Your task to perform on an android device: open app "Expedia: Hotels, Flights & Car" Image 0: 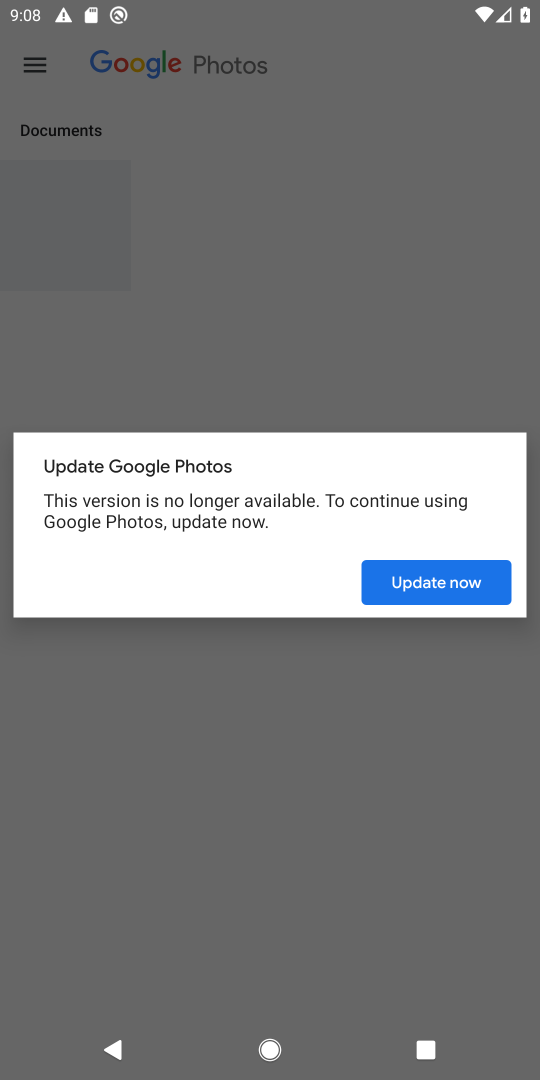
Step 0: press home button
Your task to perform on an android device: open app "Expedia: Hotels, Flights & Car" Image 1: 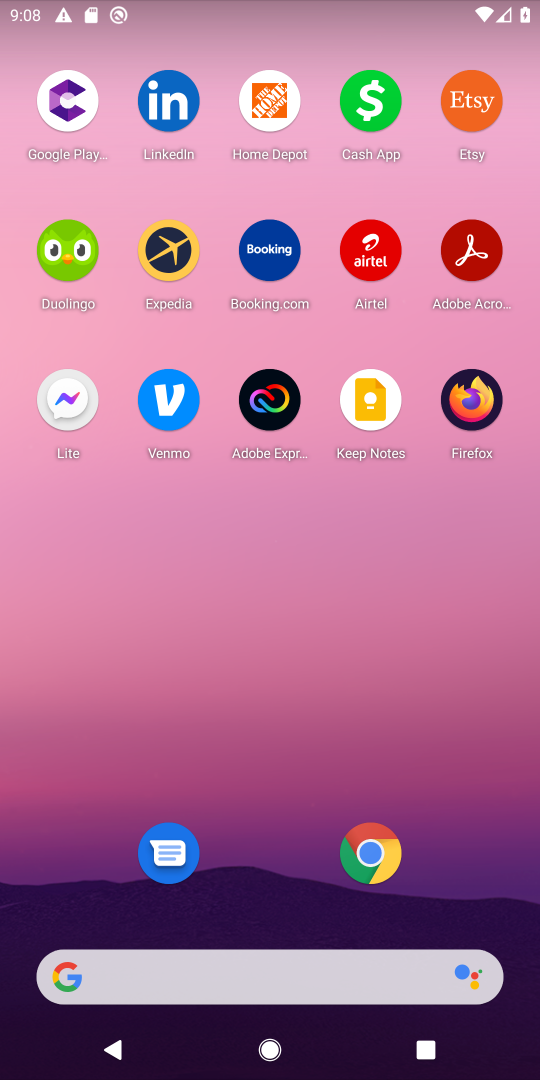
Step 1: drag from (279, 856) to (294, 302)
Your task to perform on an android device: open app "Expedia: Hotels, Flights & Car" Image 2: 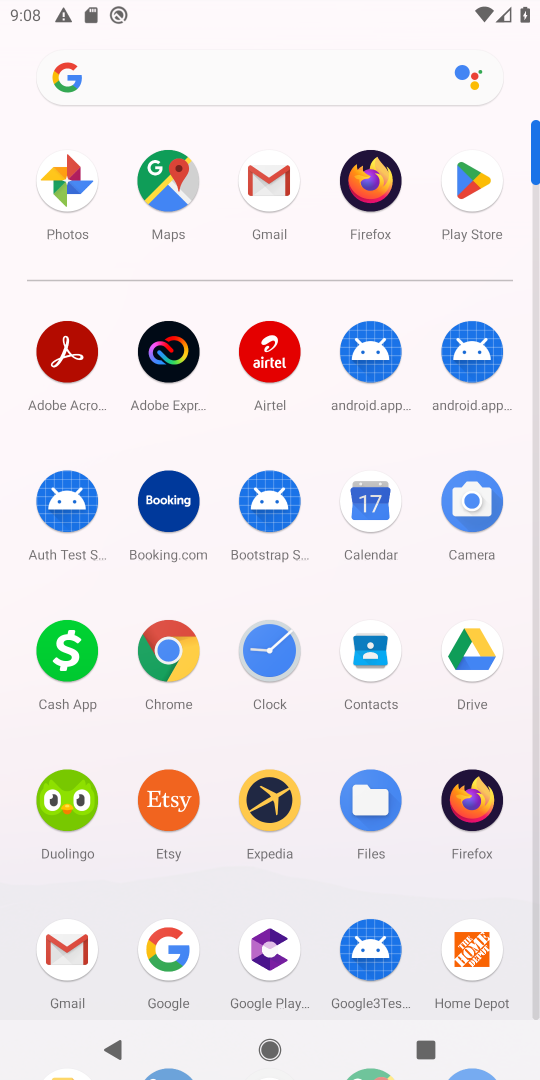
Step 2: click (459, 171)
Your task to perform on an android device: open app "Expedia: Hotels, Flights & Car" Image 3: 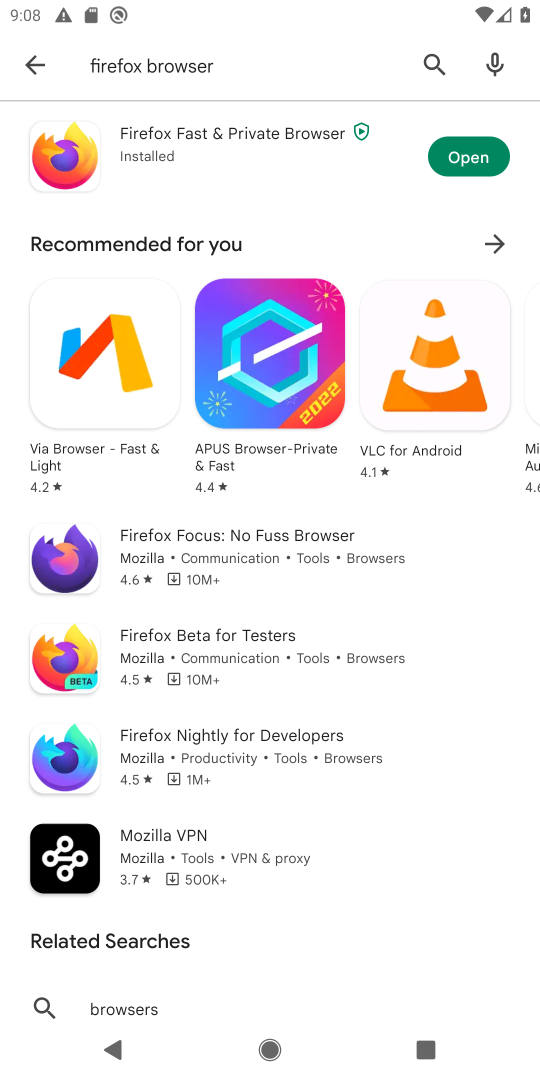
Step 3: click (423, 56)
Your task to perform on an android device: open app "Expedia: Hotels, Flights & Car" Image 4: 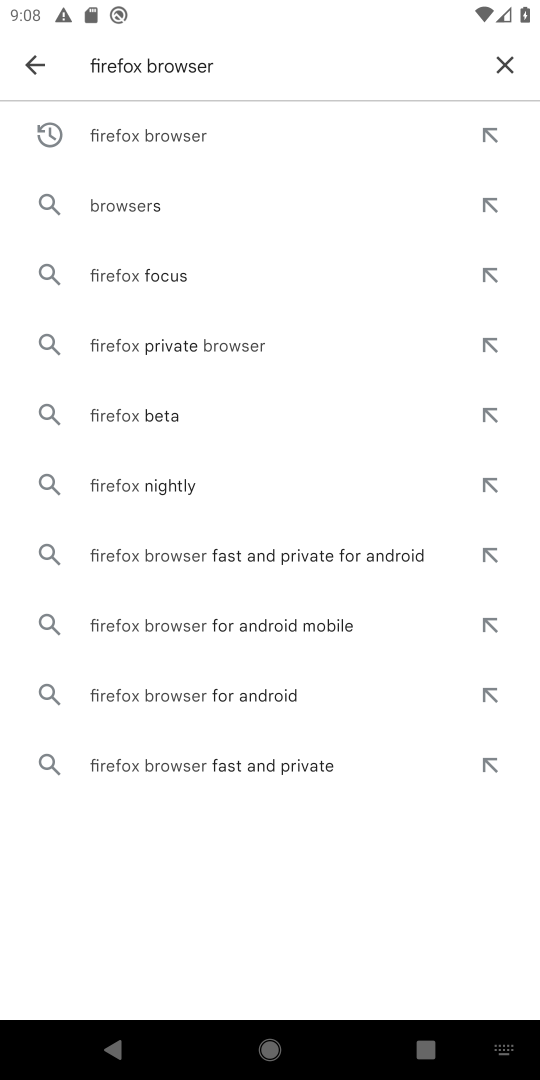
Step 4: click (504, 61)
Your task to perform on an android device: open app "Expedia: Hotels, Flights & Car" Image 5: 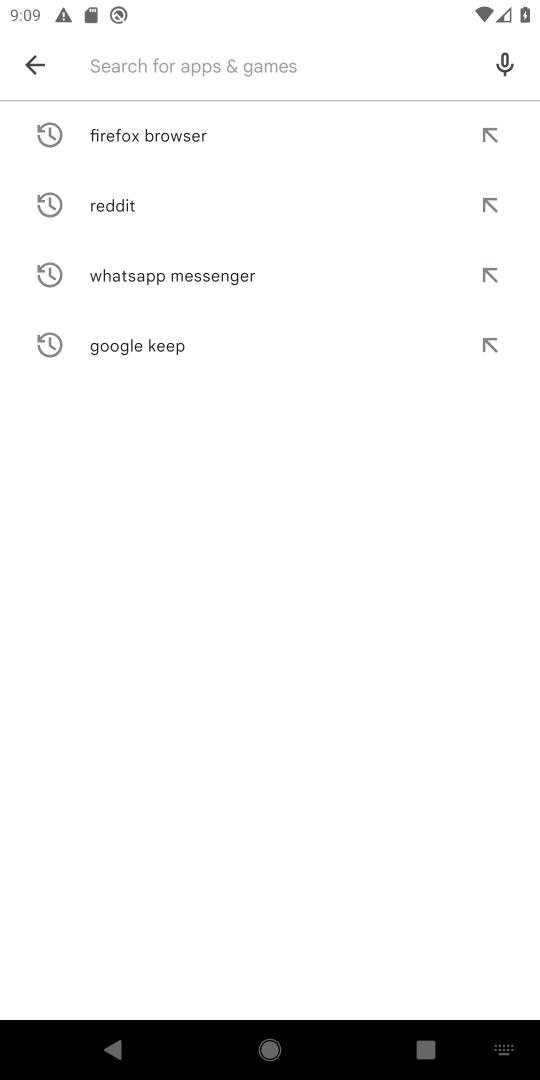
Step 5: type "Expedia: Hotels, Flights & Car"
Your task to perform on an android device: open app "Expedia: Hotels, Flights & Car" Image 6: 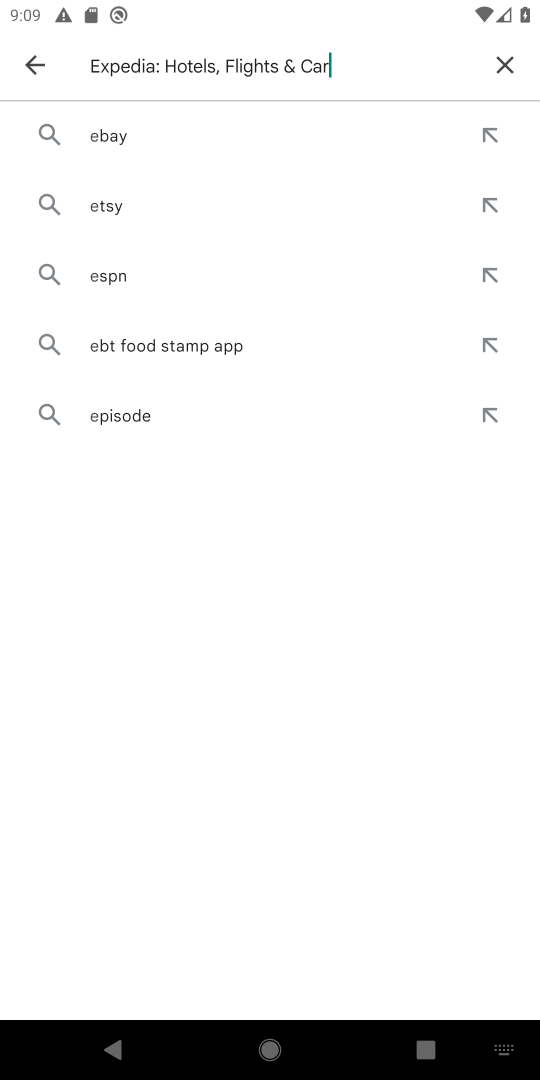
Step 6: type ""
Your task to perform on an android device: open app "Expedia: Hotels, Flights & Car" Image 7: 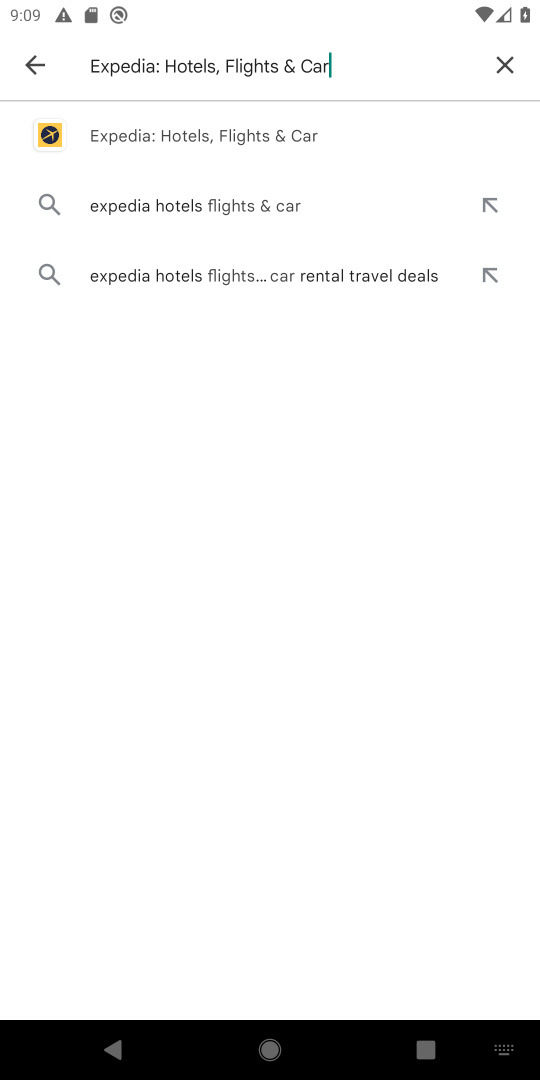
Step 7: click (305, 152)
Your task to perform on an android device: open app "Expedia: Hotels, Flights & Car" Image 8: 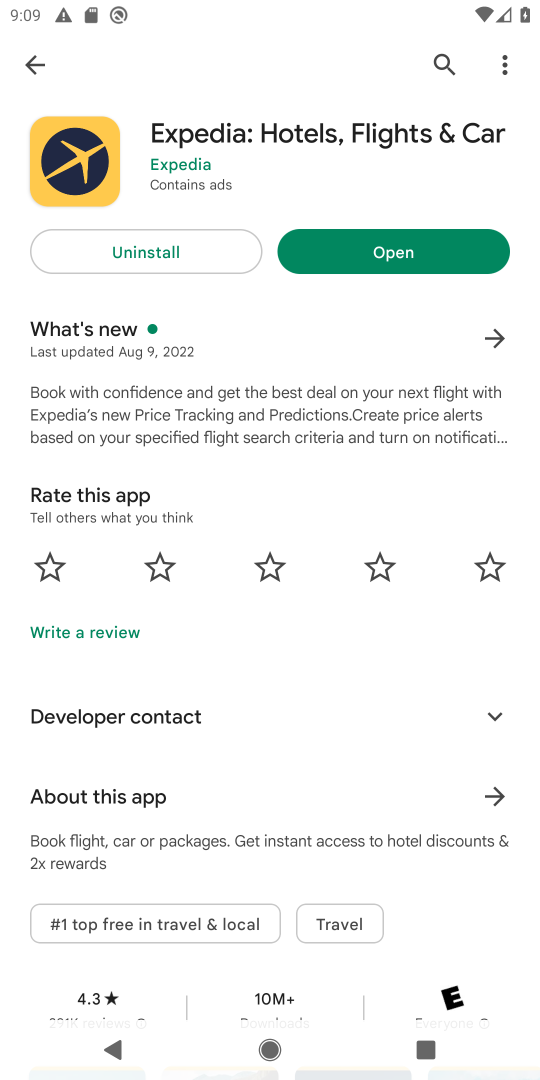
Step 8: click (382, 245)
Your task to perform on an android device: open app "Expedia: Hotels, Flights & Car" Image 9: 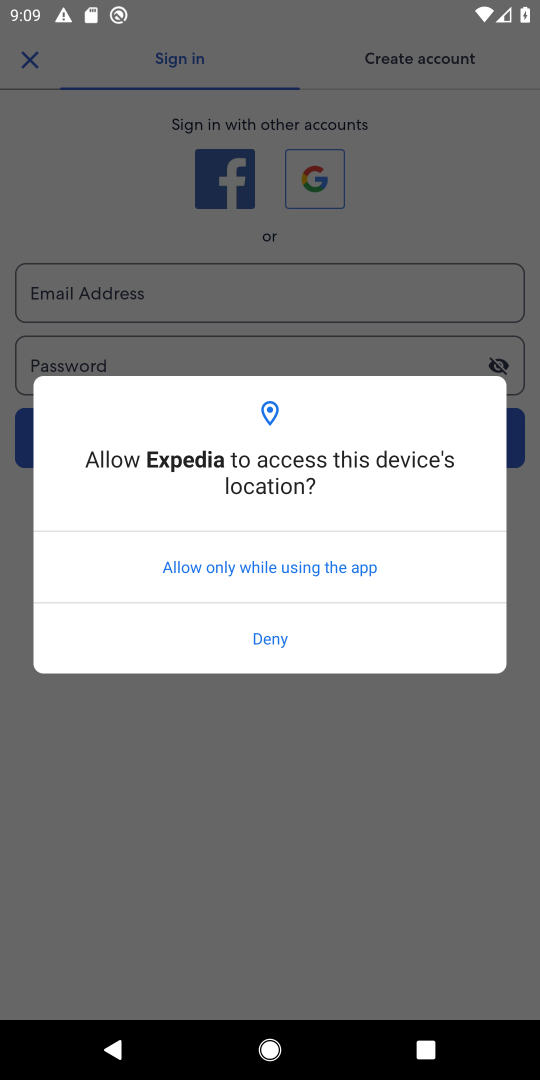
Step 9: click (281, 644)
Your task to perform on an android device: open app "Expedia: Hotels, Flights & Car" Image 10: 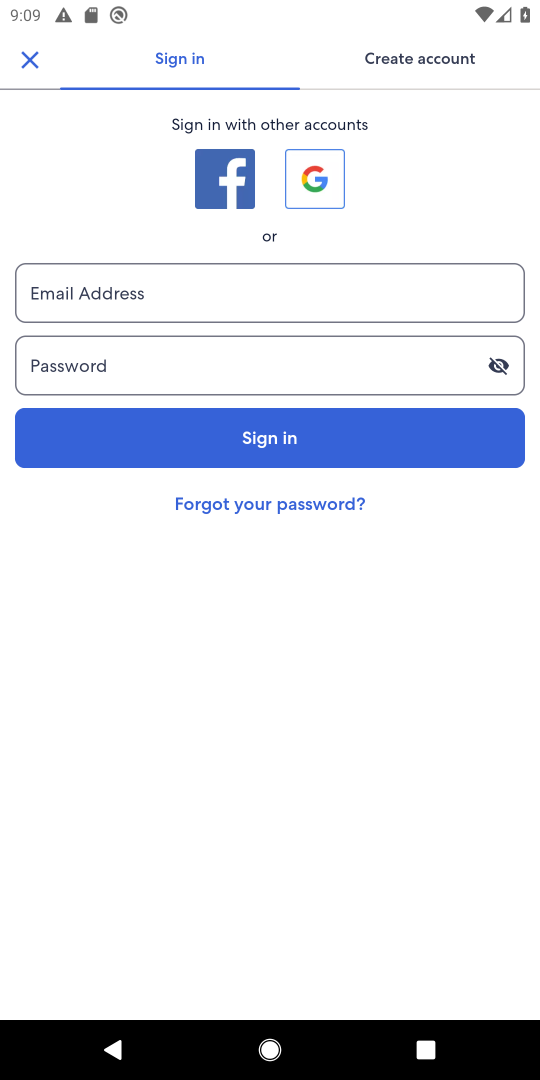
Step 10: task complete